Your task to perform on an android device: Open maps Image 0: 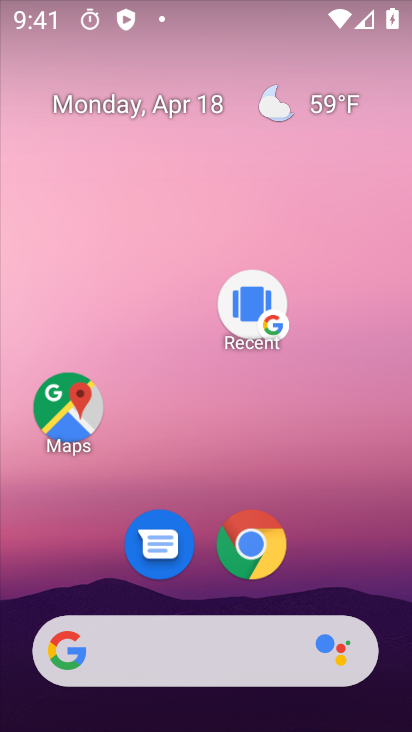
Step 0: drag from (386, 553) to (332, 127)
Your task to perform on an android device: Open maps Image 1: 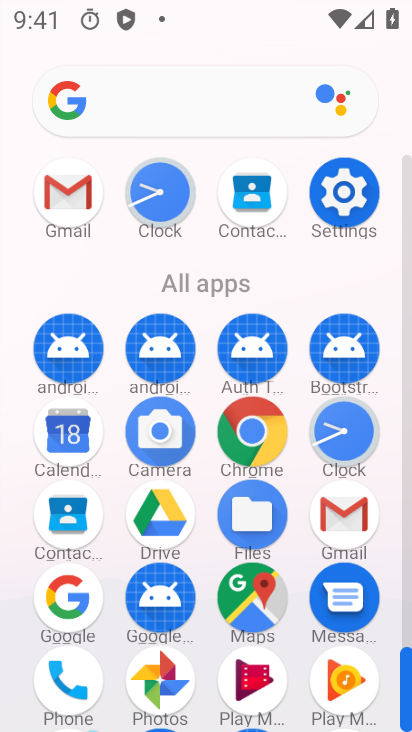
Step 1: click (239, 590)
Your task to perform on an android device: Open maps Image 2: 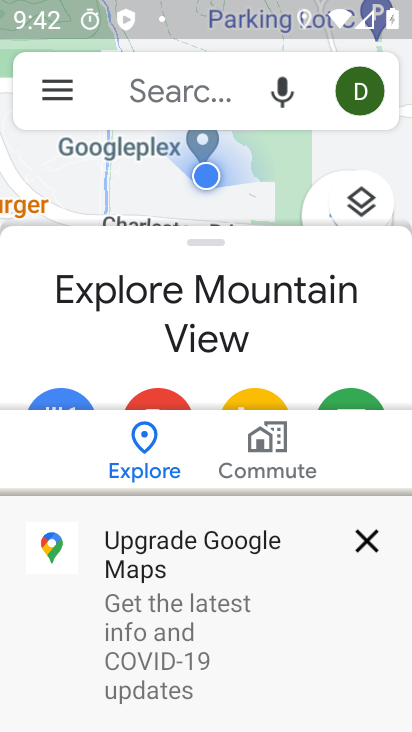
Step 2: task complete